Your task to perform on an android device: Search for razer blade on bestbuy, select the first entry, and add it to the cart. Image 0: 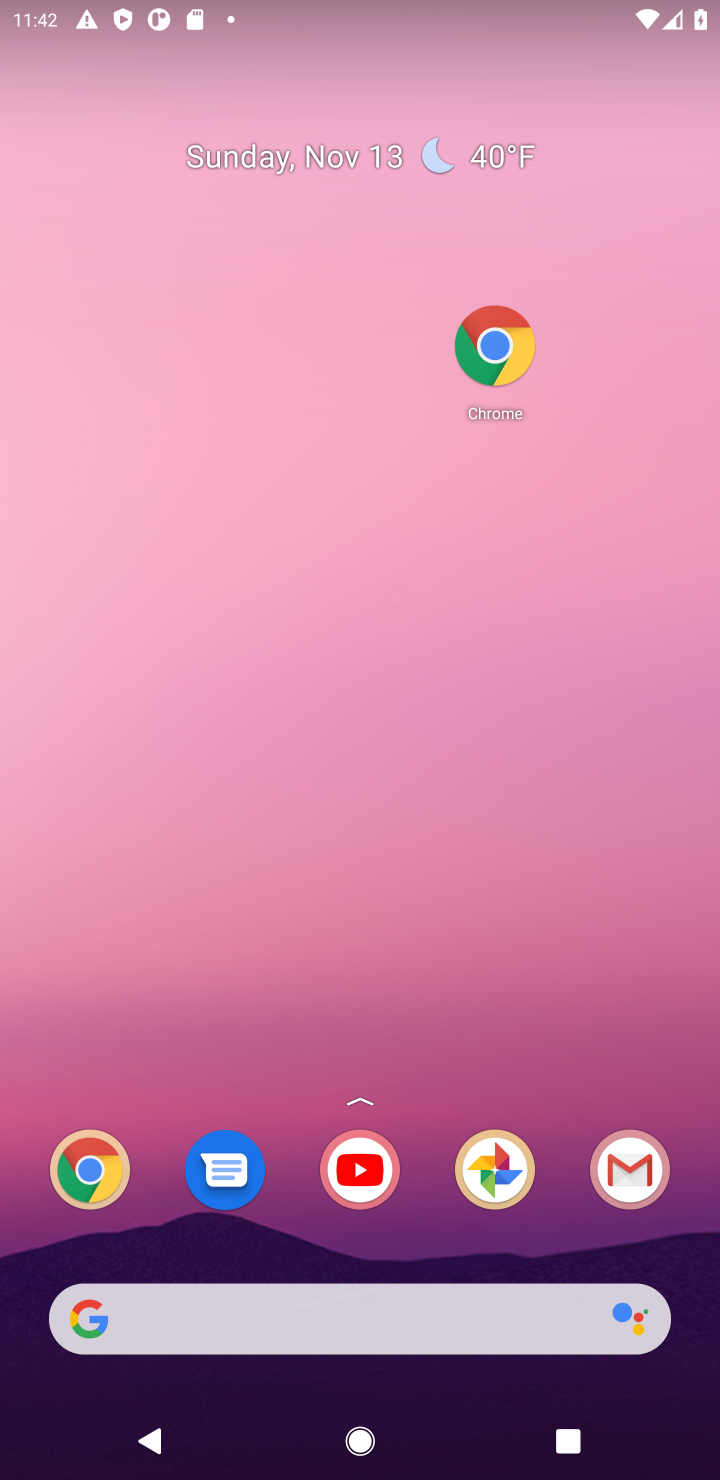
Step 0: drag from (192, 1055) to (242, 183)
Your task to perform on an android device: Search for razer blade on bestbuy, select the first entry, and add it to the cart. Image 1: 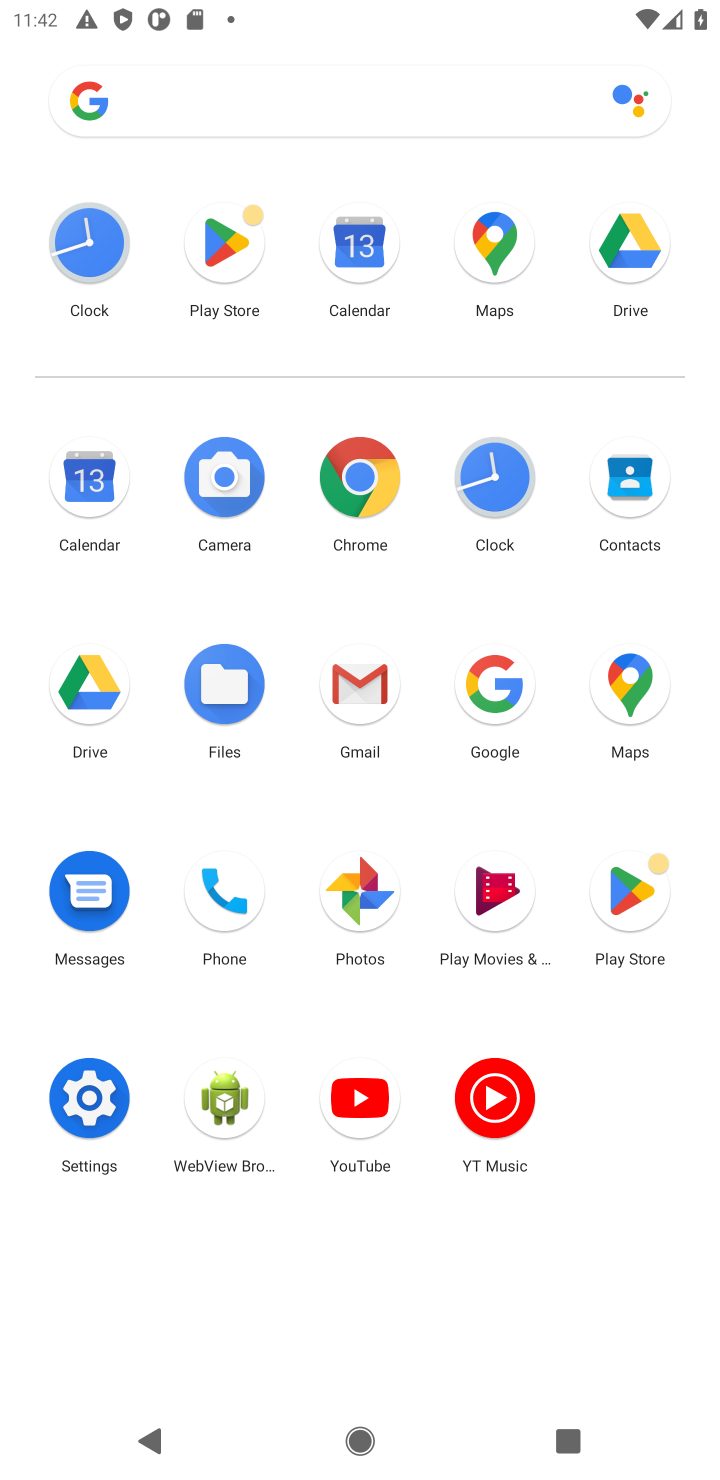
Step 1: click (381, 486)
Your task to perform on an android device: Search for razer blade on bestbuy, select the first entry, and add it to the cart. Image 2: 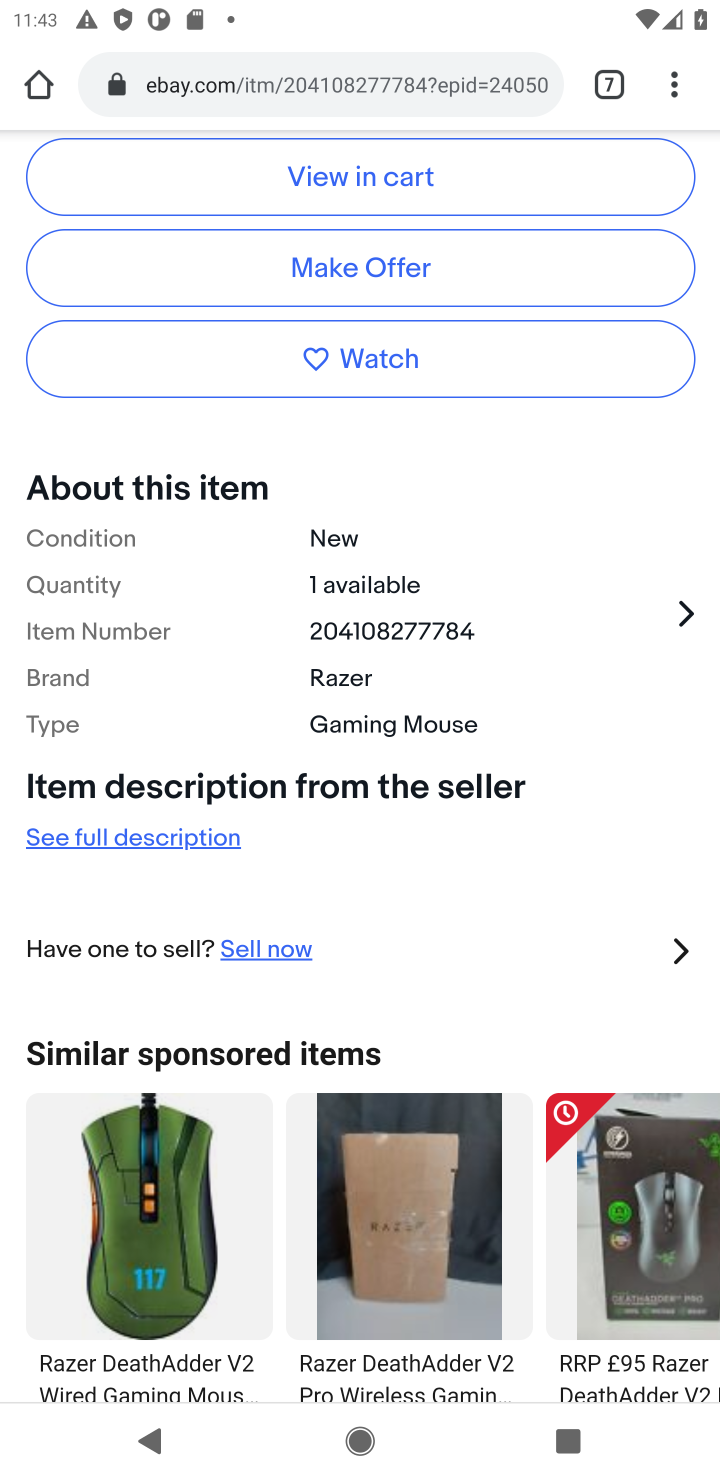
Step 2: drag from (455, 508) to (531, 891)
Your task to perform on an android device: Search for razer blade on bestbuy, select the first entry, and add it to the cart. Image 3: 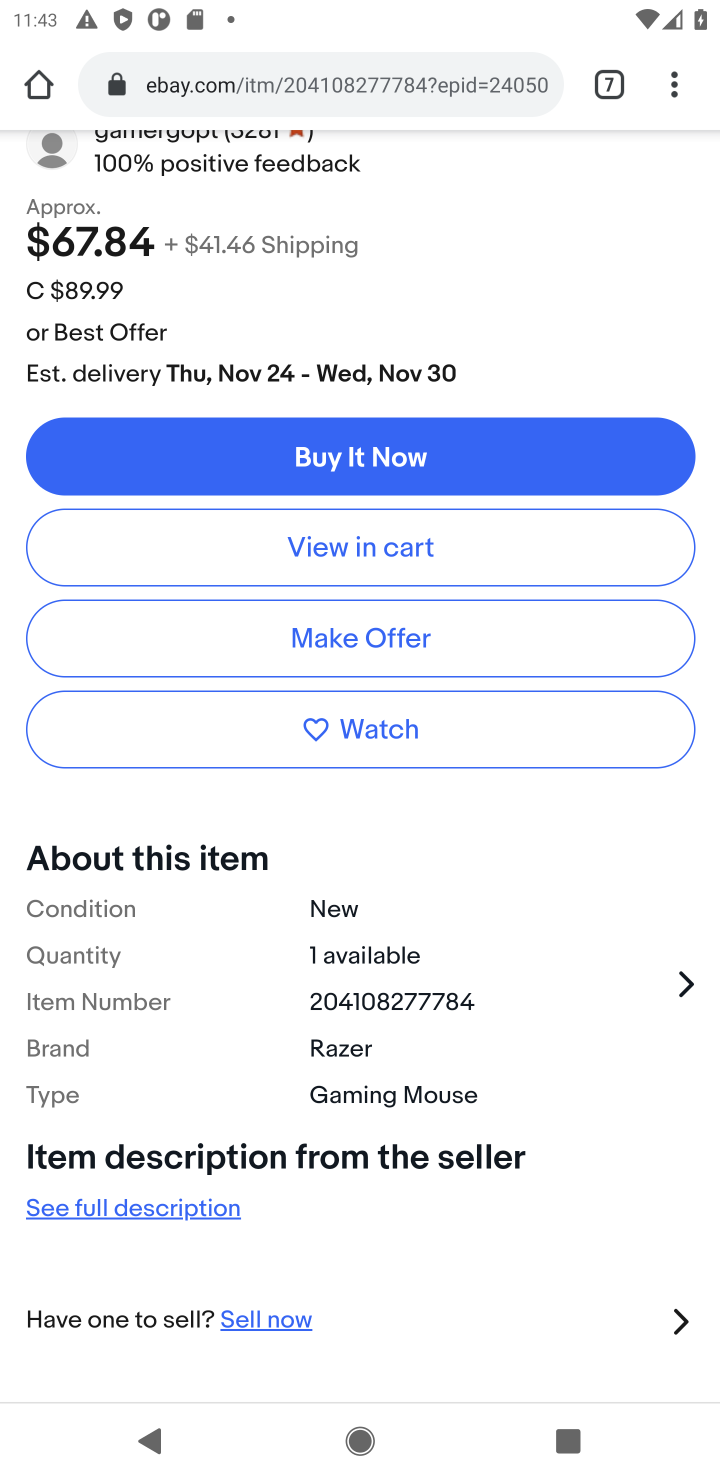
Step 3: drag from (614, 317) to (564, 892)
Your task to perform on an android device: Search for razer blade on bestbuy, select the first entry, and add it to the cart. Image 4: 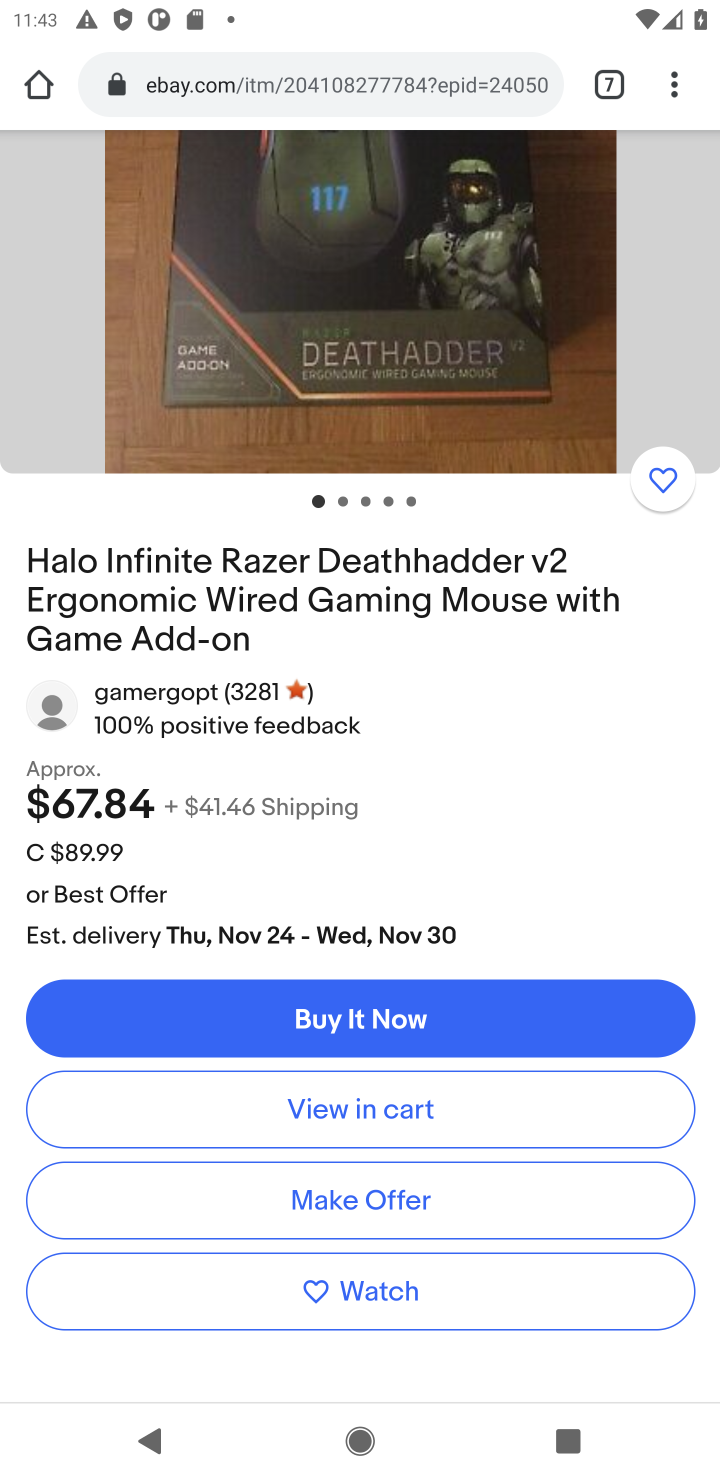
Step 4: click (449, 96)
Your task to perform on an android device: Search for razer blade on bestbuy, select the first entry, and add it to the cart. Image 5: 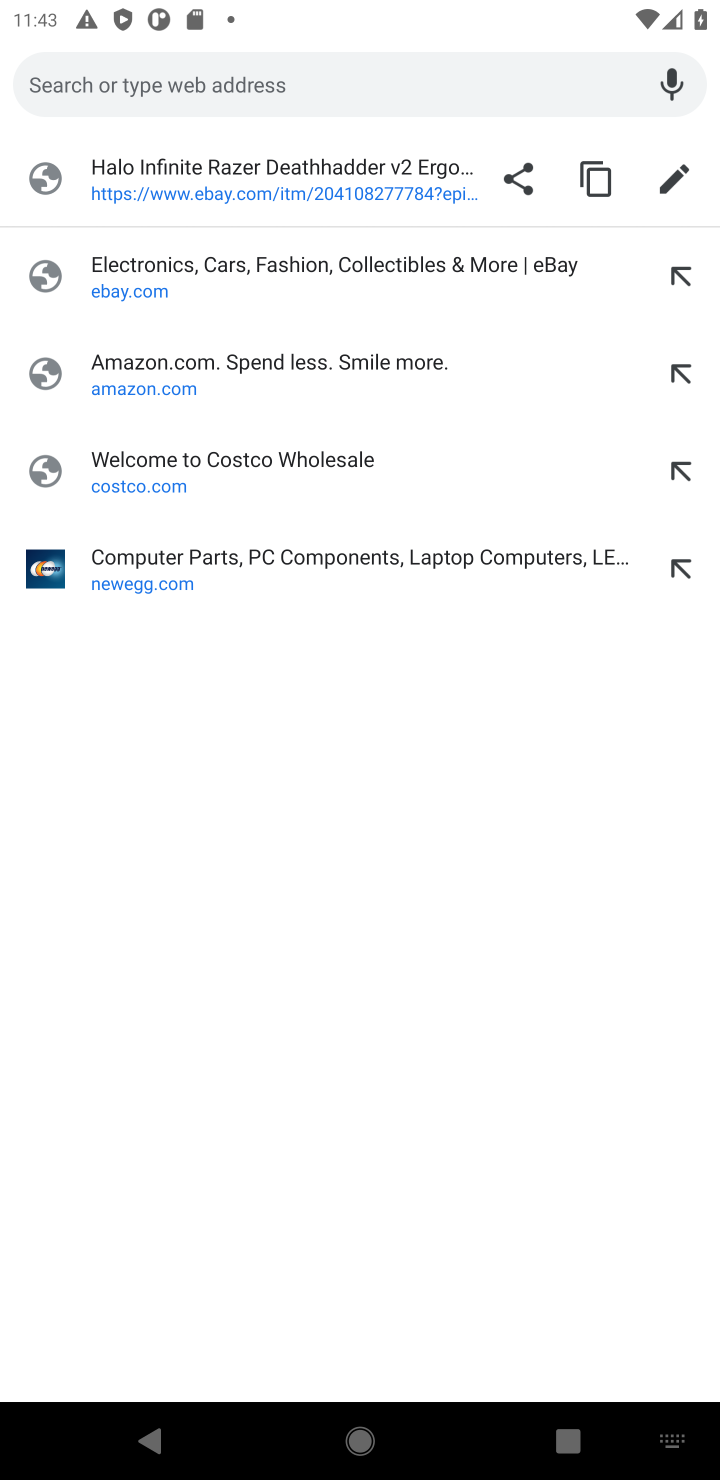
Step 5: type "bestbuy"
Your task to perform on an android device: Search for razer blade on bestbuy, select the first entry, and add it to the cart. Image 6: 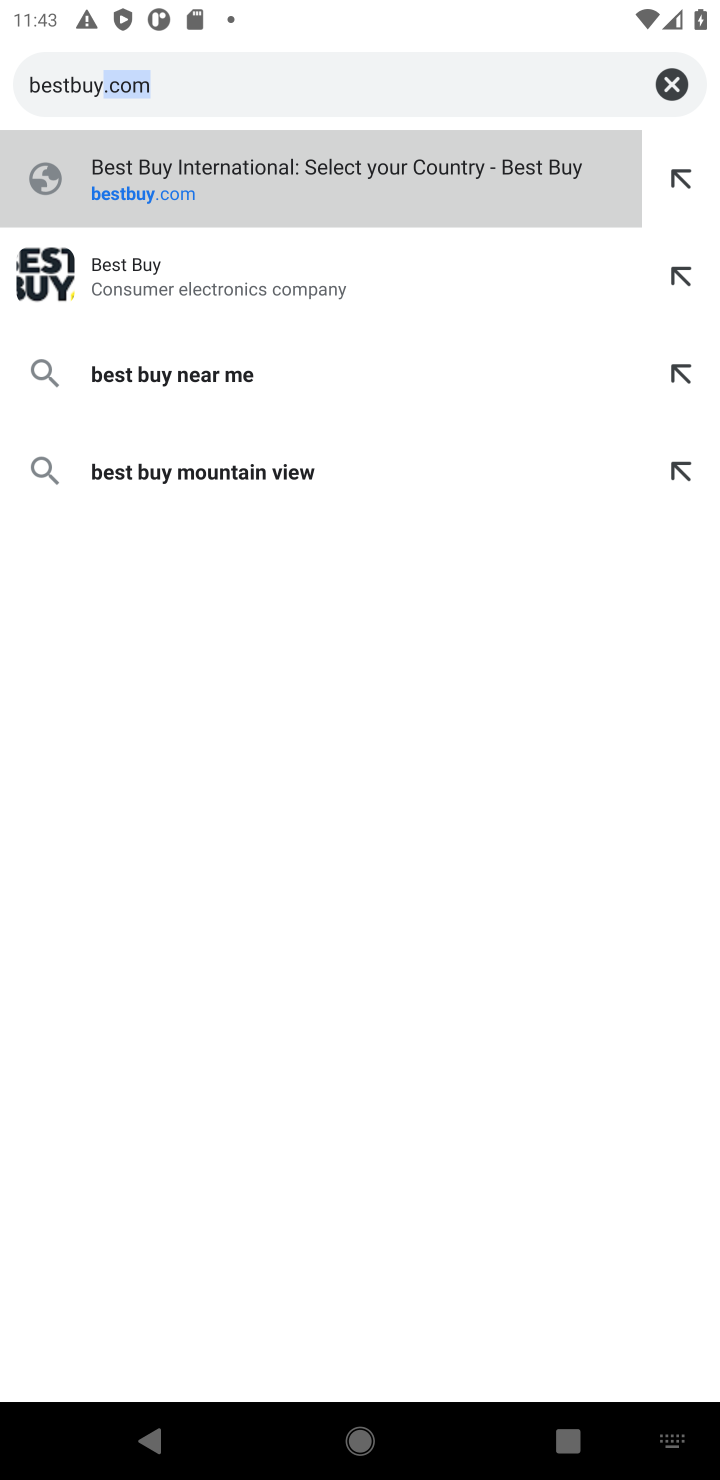
Step 6: press enter
Your task to perform on an android device: Search for razer blade on bestbuy, select the first entry, and add it to the cart. Image 7: 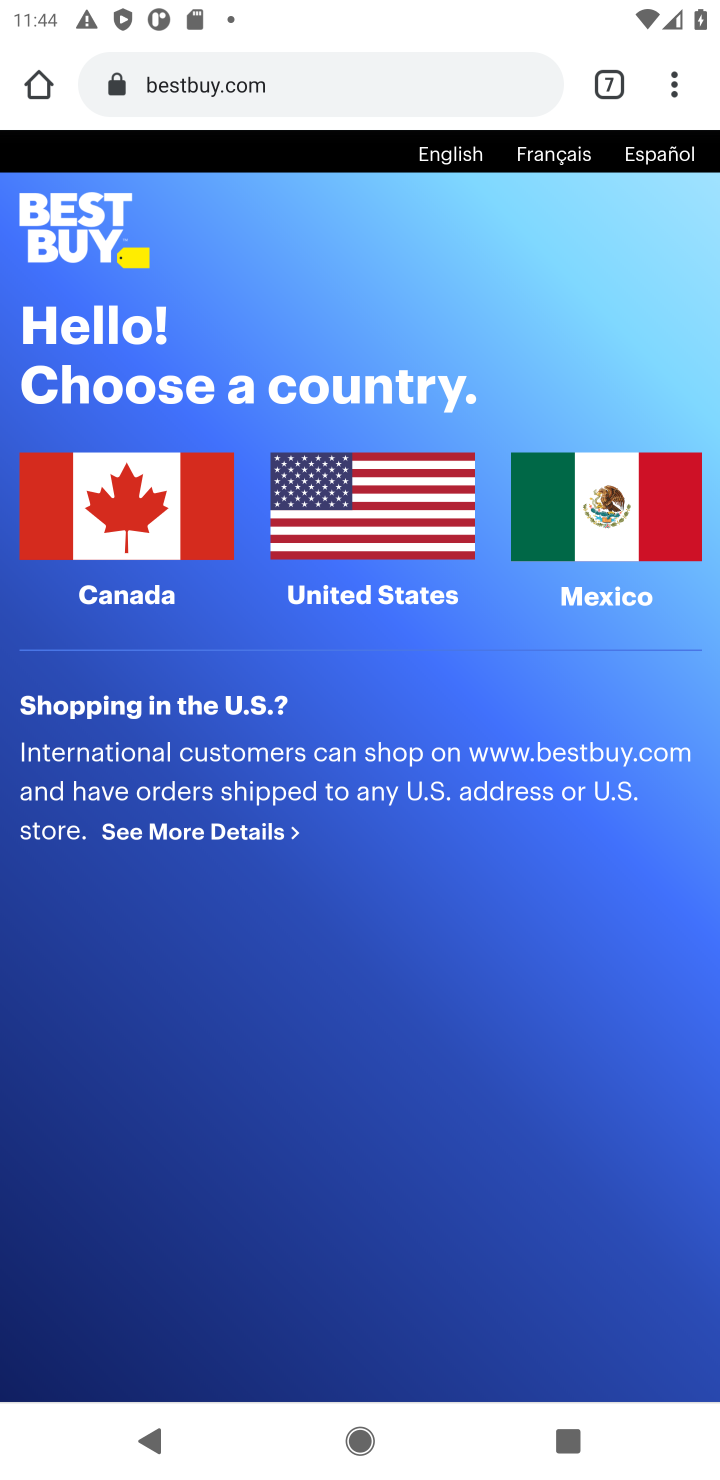
Step 7: click (160, 503)
Your task to perform on an android device: Search for razer blade on bestbuy, select the first entry, and add it to the cart. Image 8: 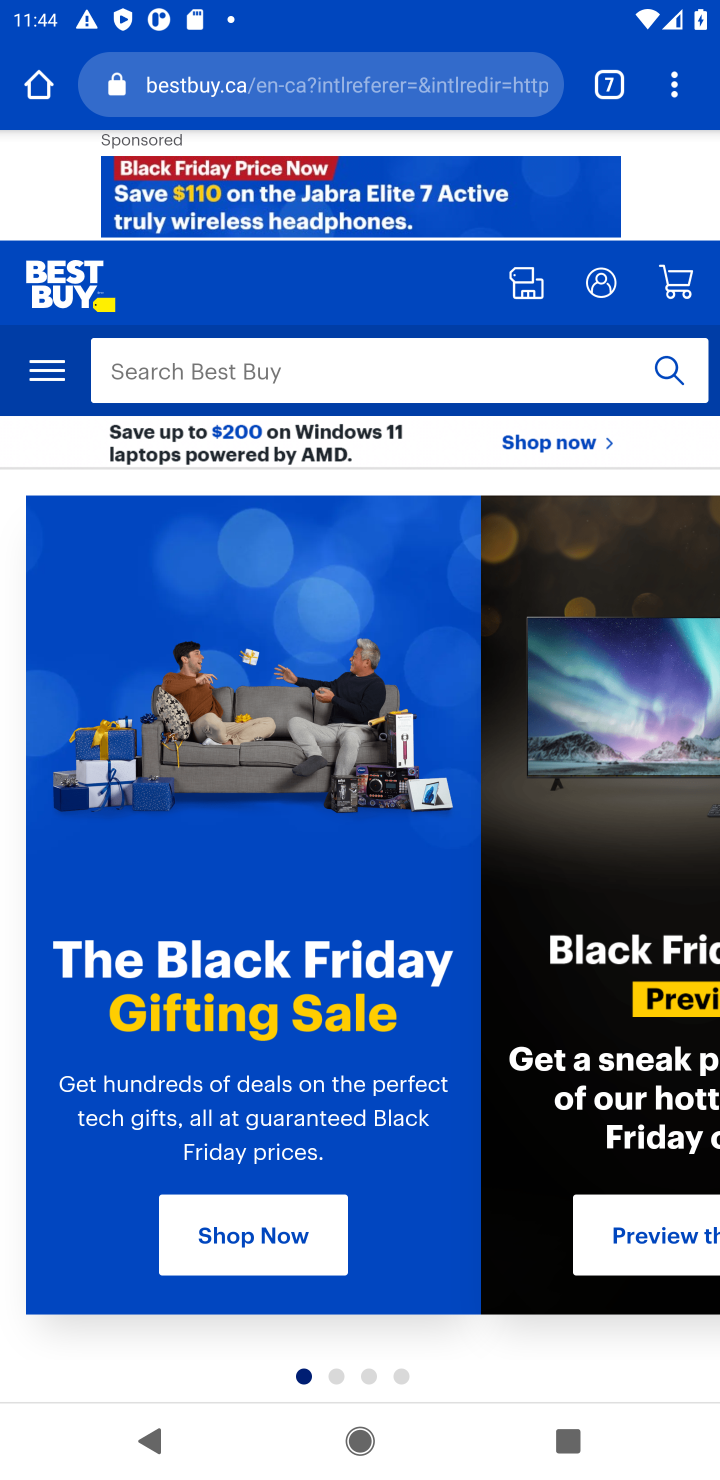
Step 8: click (325, 389)
Your task to perform on an android device: Search for razer blade on bestbuy, select the first entry, and add it to the cart. Image 9: 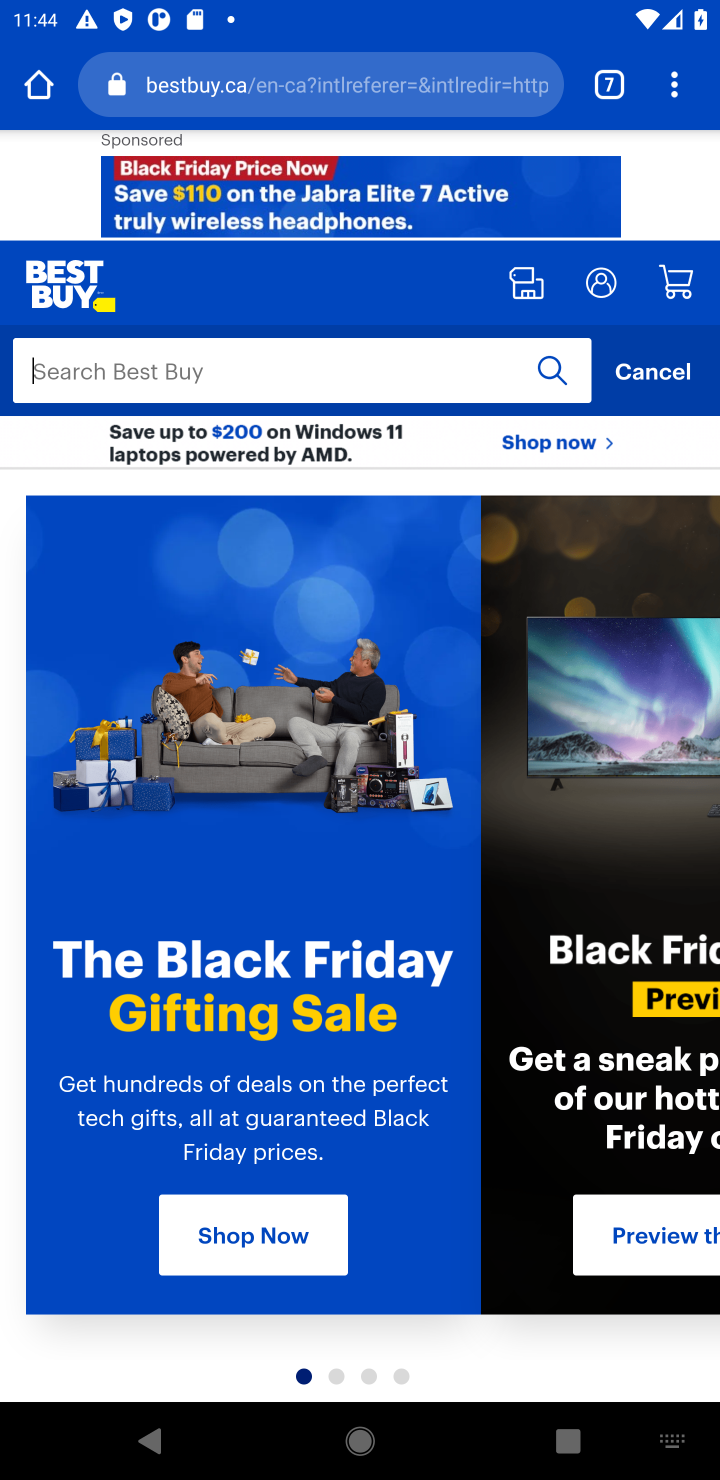
Step 9: press enter
Your task to perform on an android device: Search for razer blade on bestbuy, select the first entry, and add it to the cart. Image 10: 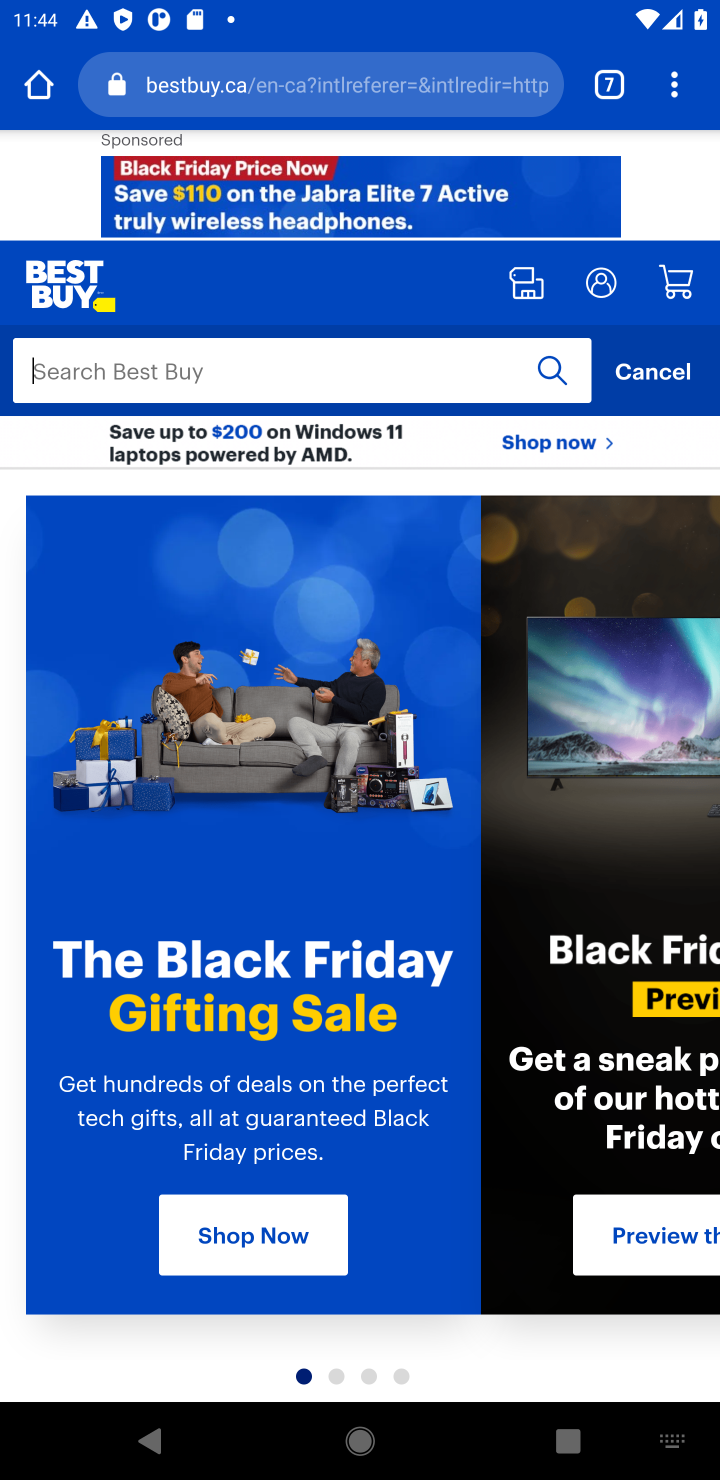
Step 10: type "razer blade"
Your task to perform on an android device: Search for razer blade on bestbuy, select the first entry, and add it to the cart. Image 11: 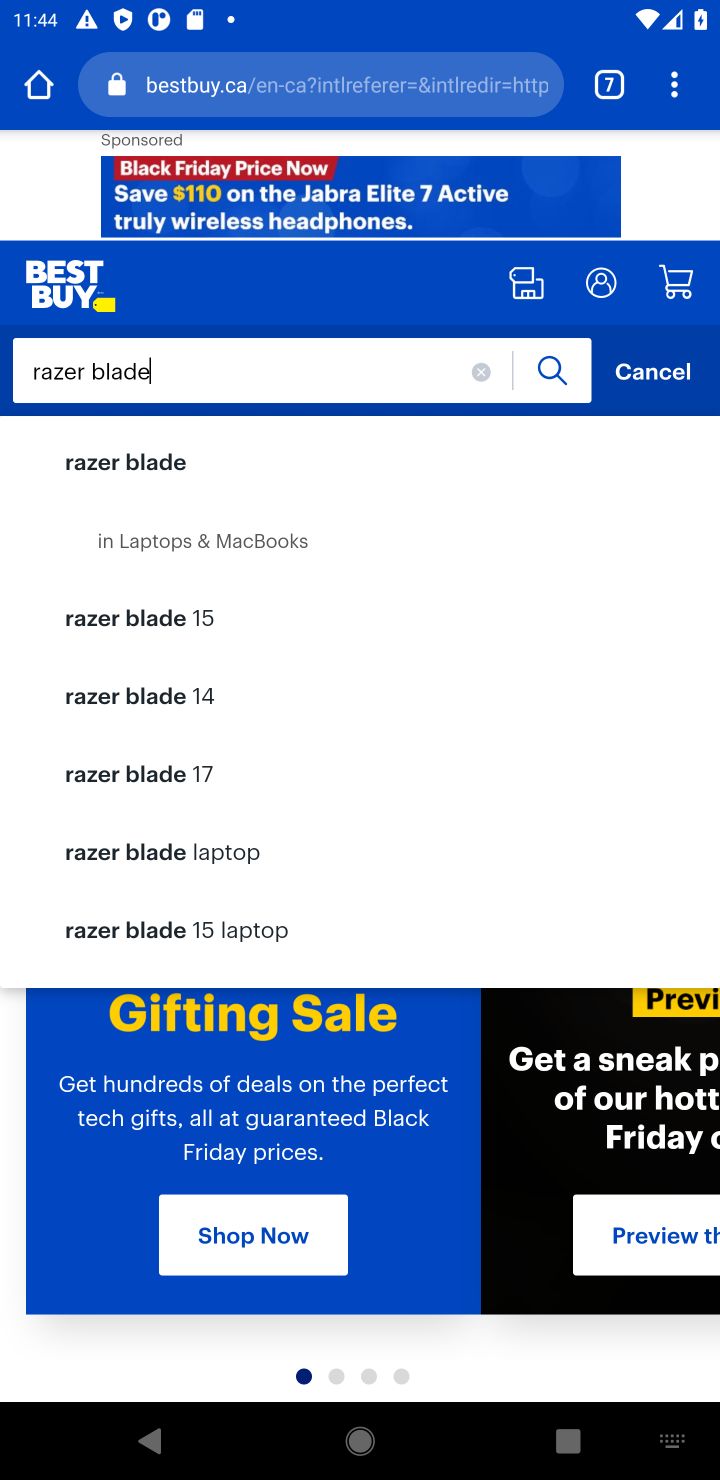
Step 11: click (552, 364)
Your task to perform on an android device: Search for razer blade on bestbuy, select the first entry, and add it to the cart. Image 12: 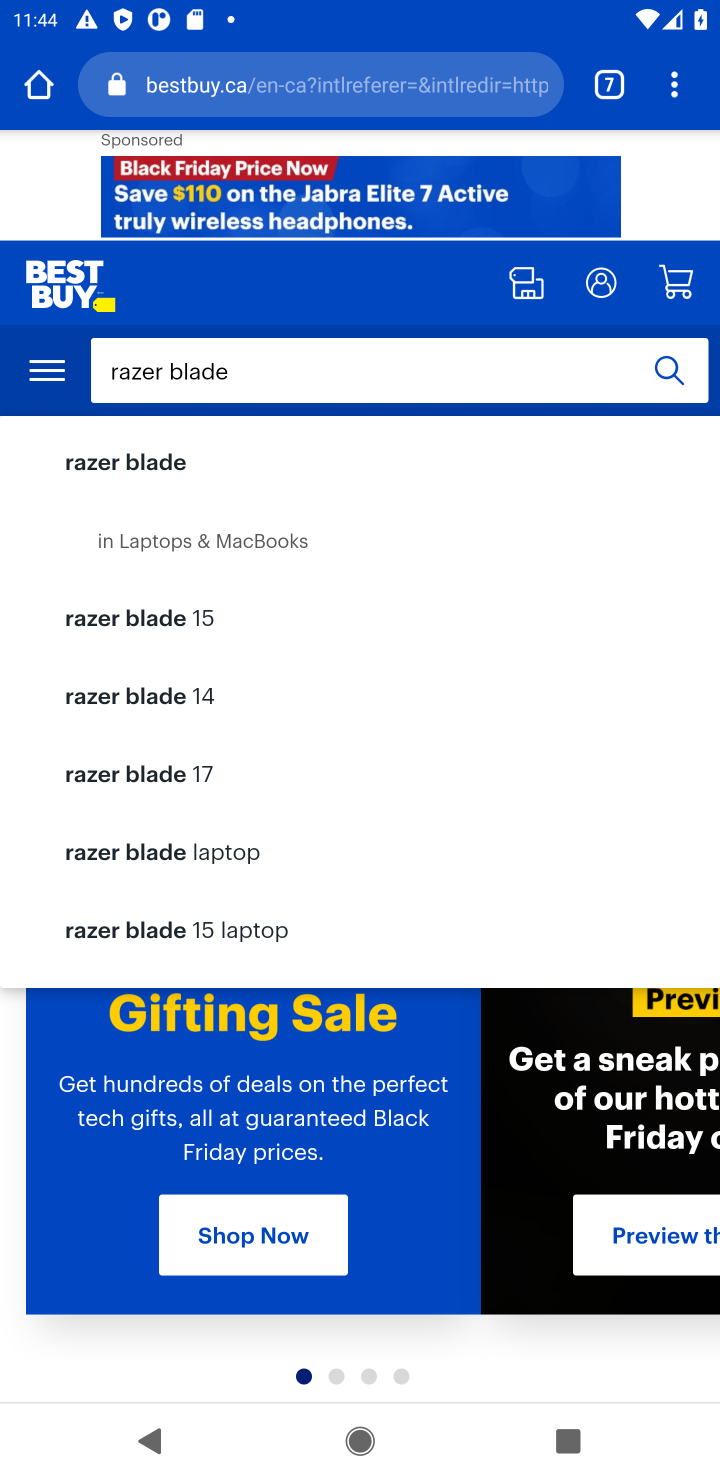
Step 12: click (687, 381)
Your task to perform on an android device: Search for razer blade on bestbuy, select the first entry, and add it to the cart. Image 13: 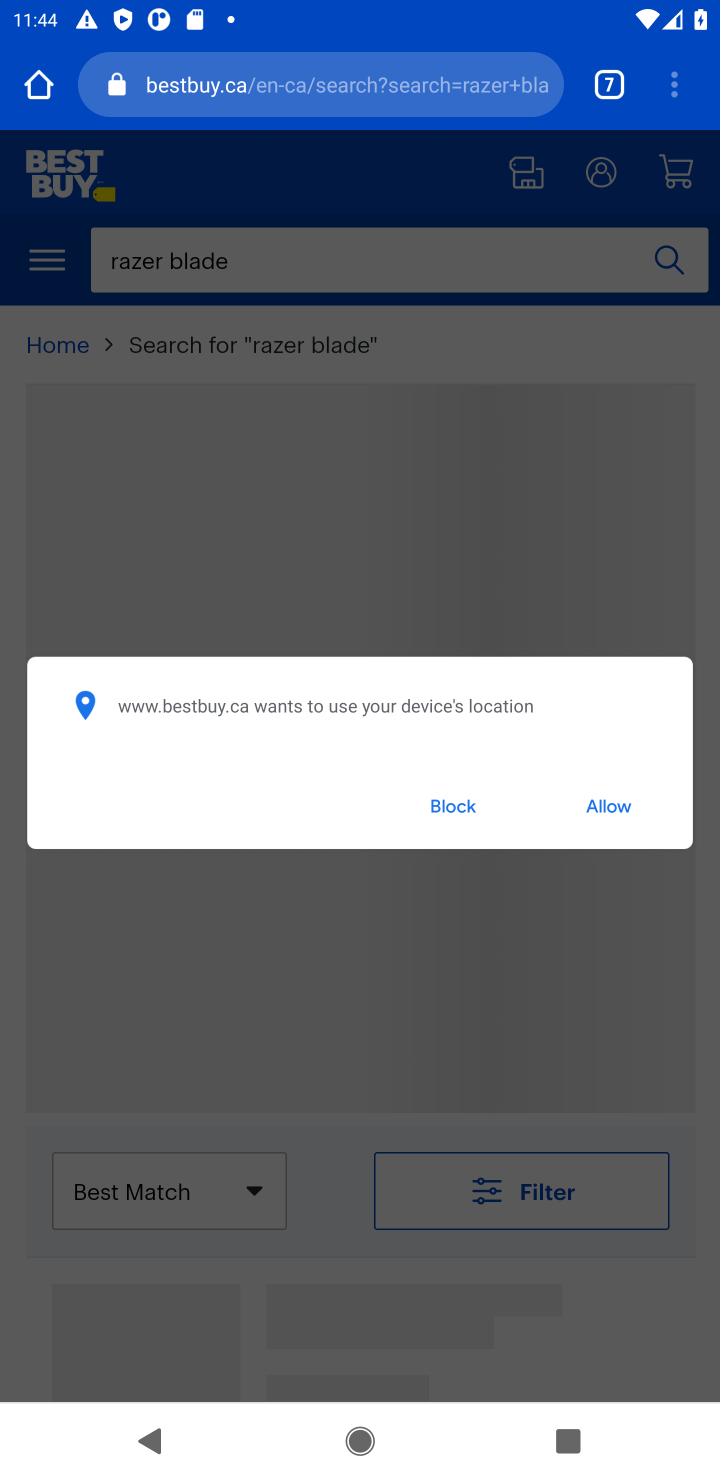
Step 13: click (612, 805)
Your task to perform on an android device: Search for razer blade on bestbuy, select the first entry, and add it to the cart. Image 14: 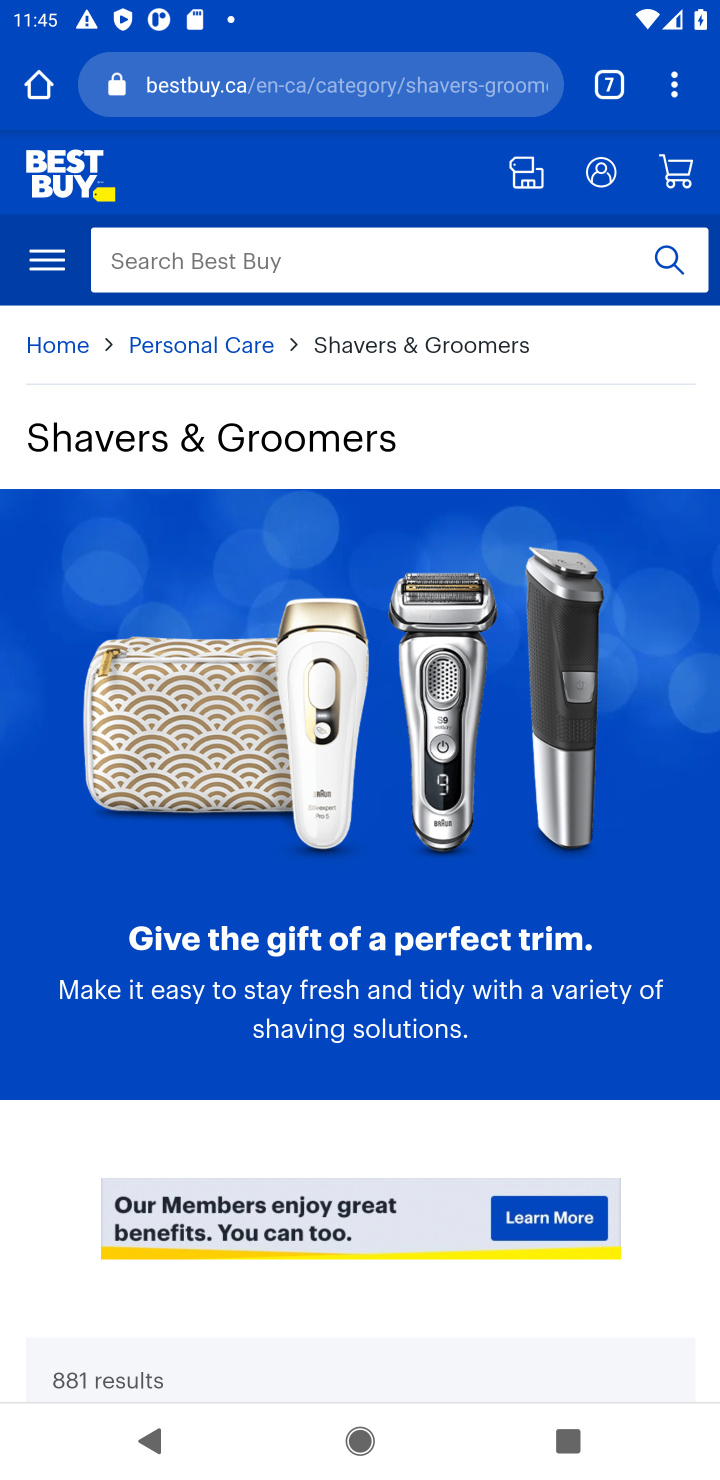
Step 14: click (200, 281)
Your task to perform on an android device: Search for razer blade on bestbuy, select the first entry, and add it to the cart. Image 15: 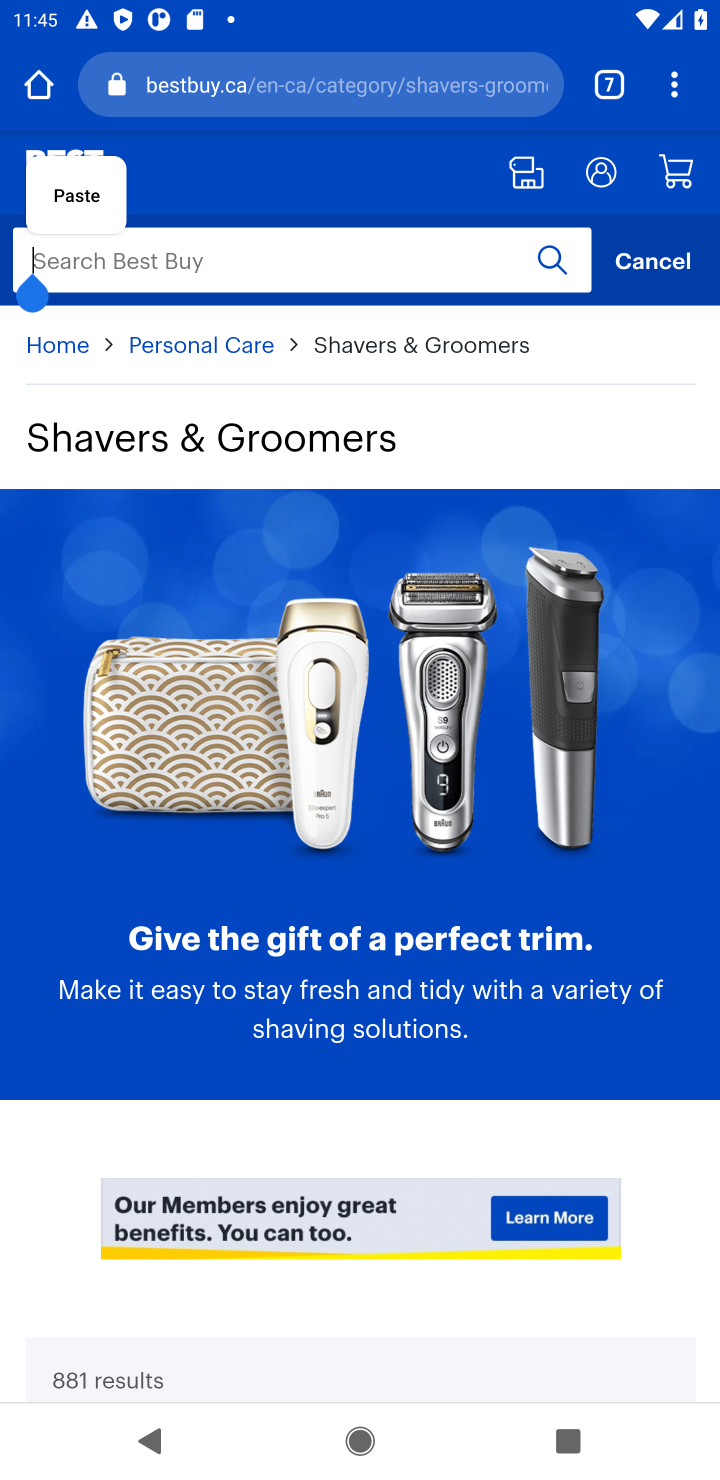
Step 15: click (109, 210)
Your task to perform on an android device: Search for razer blade on bestbuy, select the first entry, and add it to the cart. Image 16: 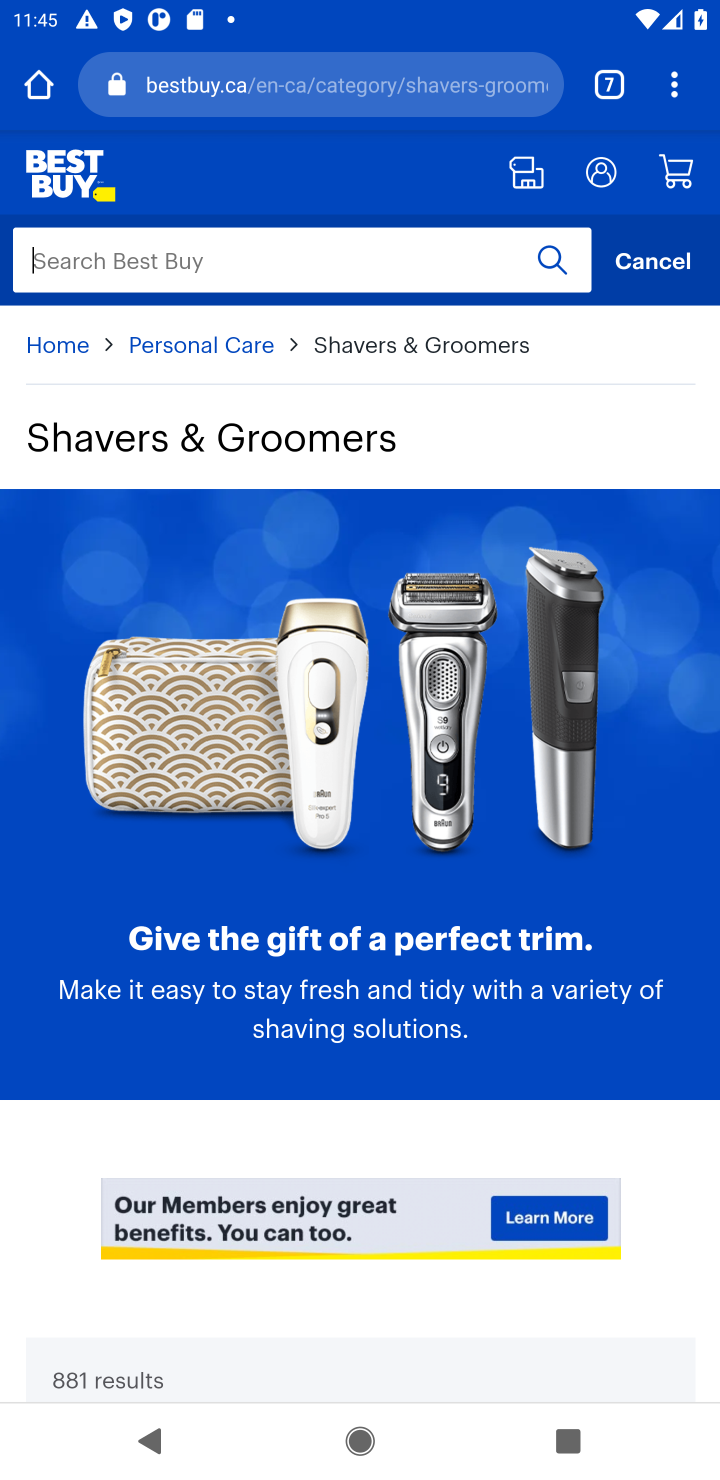
Step 16: click (131, 256)
Your task to perform on an android device: Search for razer blade on bestbuy, select the first entry, and add it to the cart. Image 17: 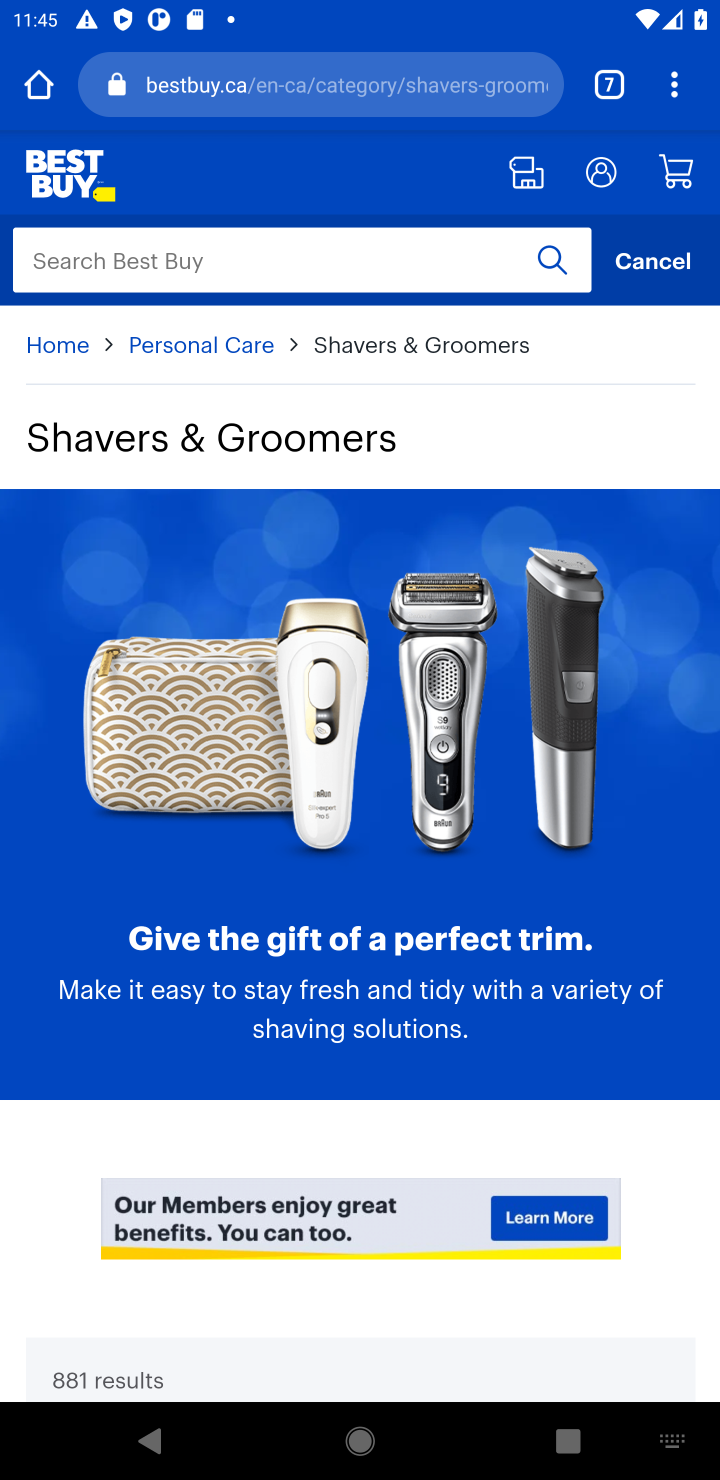
Step 17: type "razer blade"
Your task to perform on an android device: Search for razer blade on bestbuy, select the first entry, and add it to the cart. Image 18: 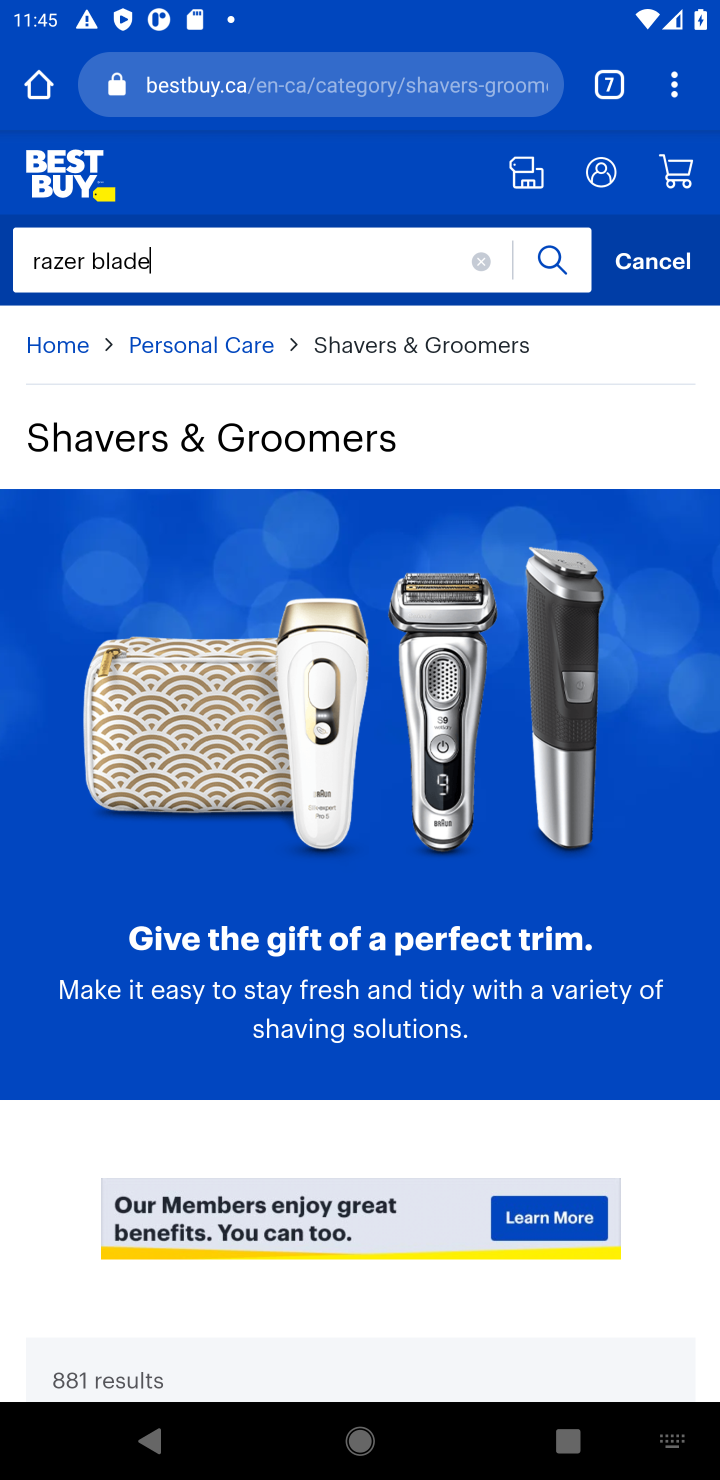
Step 18: press enter
Your task to perform on an android device: Search for razer blade on bestbuy, select the first entry, and add it to the cart. Image 19: 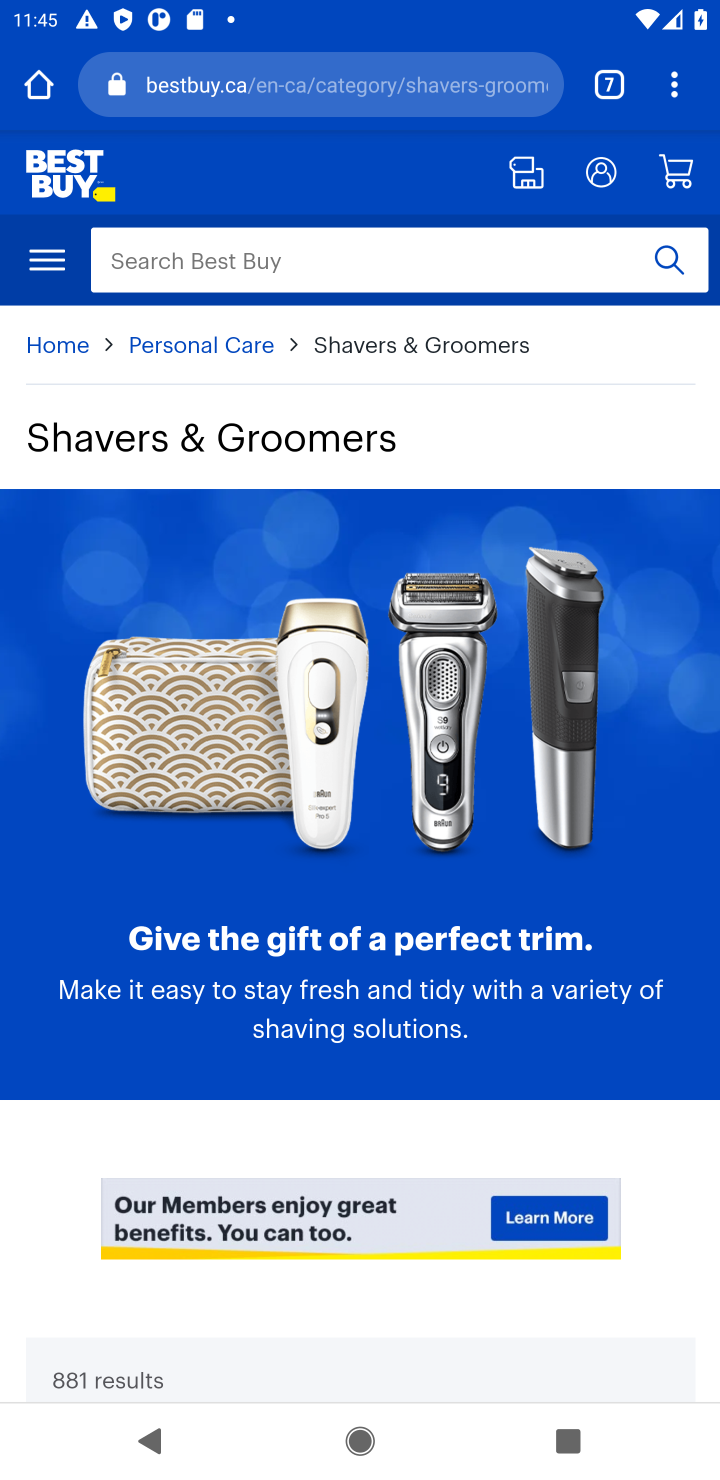
Step 19: drag from (201, 786) to (343, 283)
Your task to perform on an android device: Search for razer blade on bestbuy, select the first entry, and add it to the cart. Image 20: 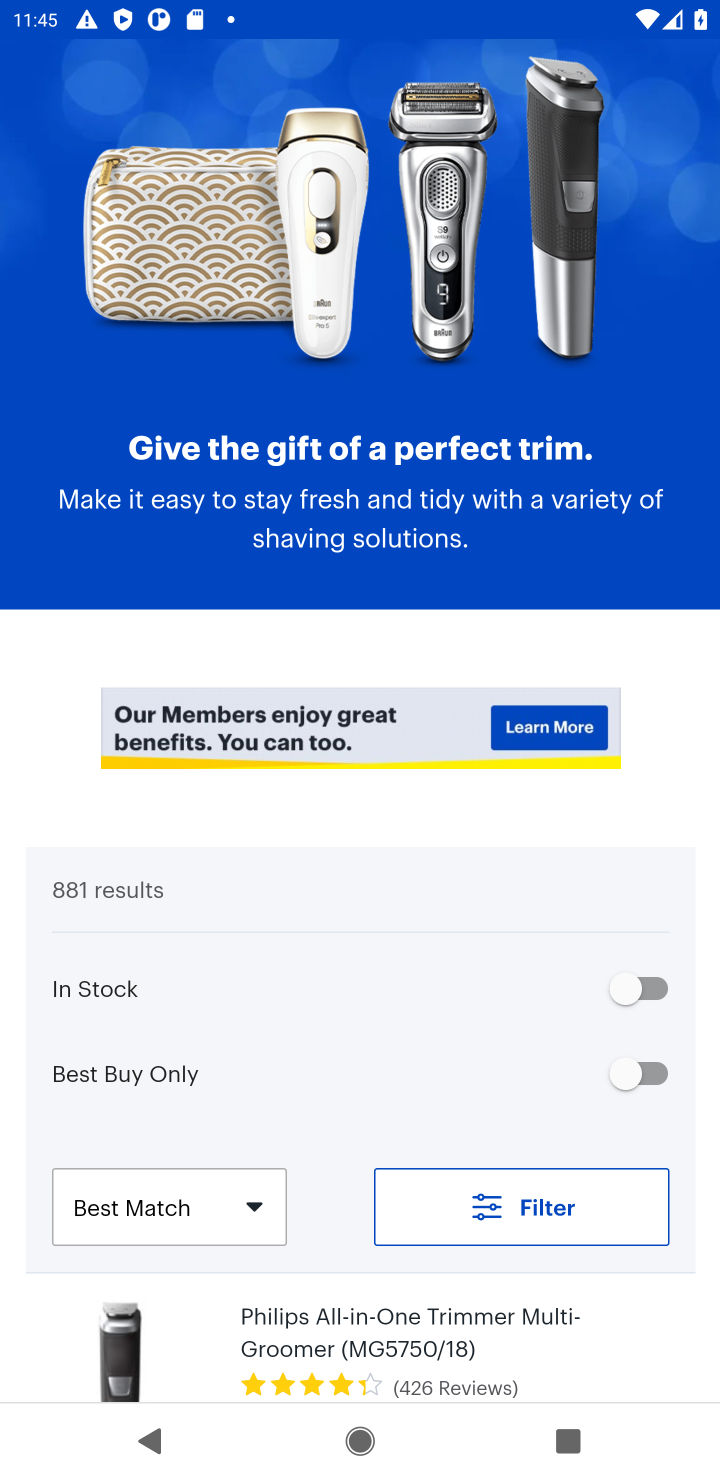
Step 20: drag from (307, 1004) to (475, 334)
Your task to perform on an android device: Search for razer blade on bestbuy, select the first entry, and add it to the cart. Image 21: 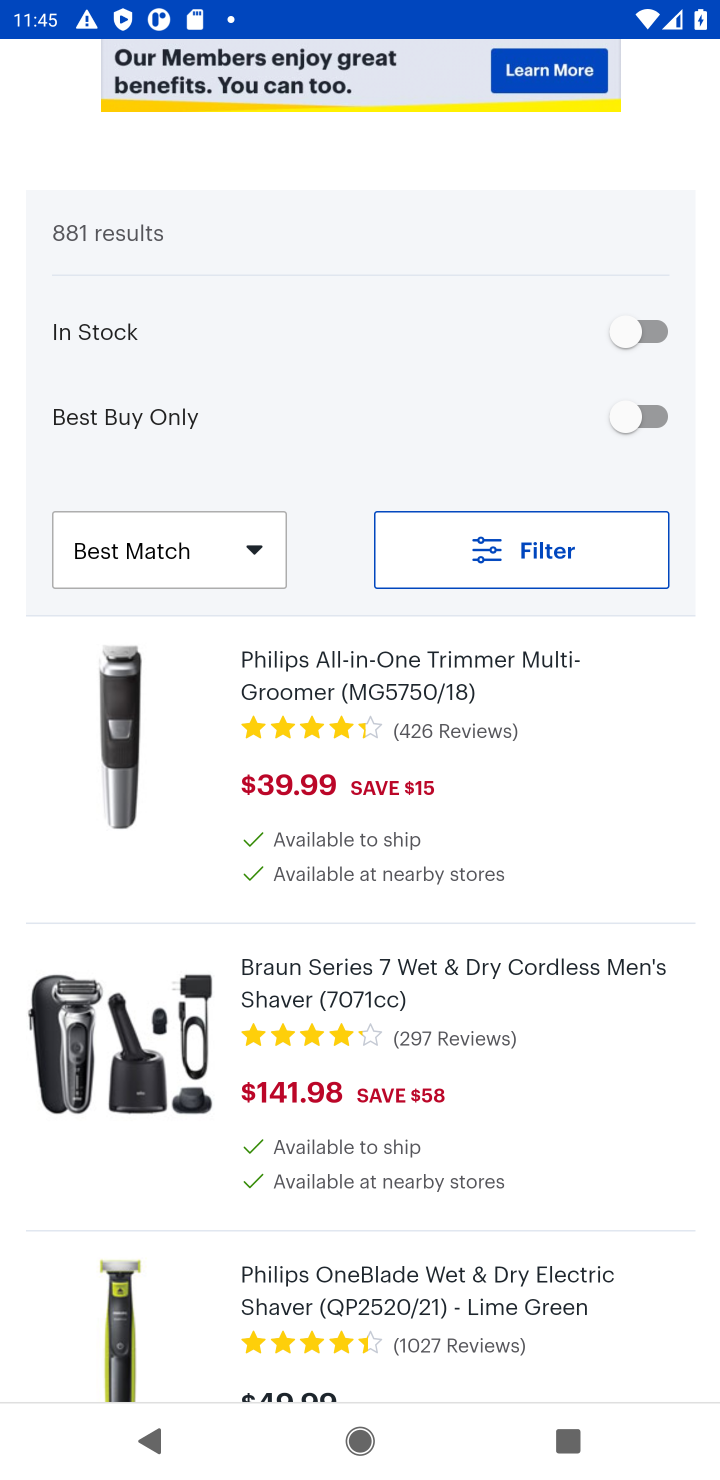
Step 21: click (360, 696)
Your task to perform on an android device: Search for razer blade on bestbuy, select the first entry, and add it to the cart. Image 22: 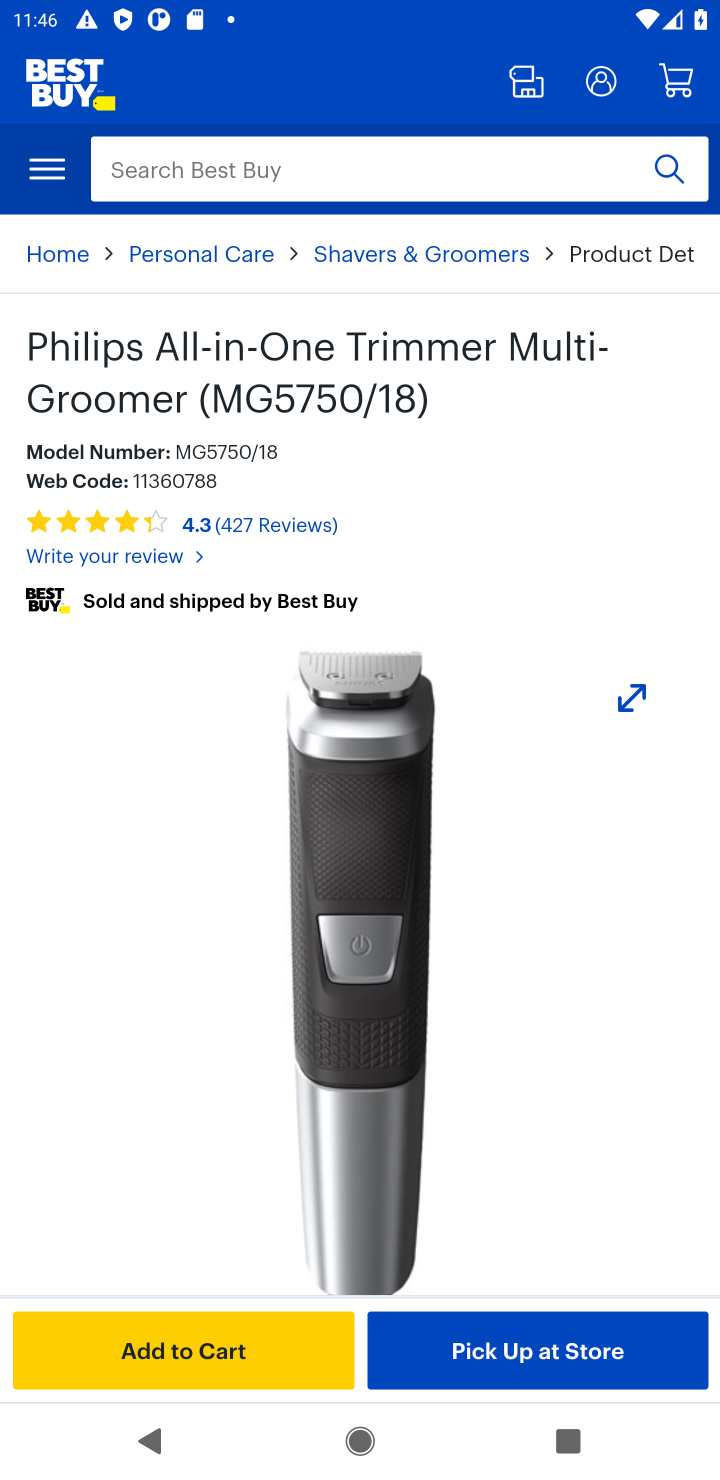
Step 22: click (225, 1360)
Your task to perform on an android device: Search for razer blade on bestbuy, select the first entry, and add it to the cart. Image 23: 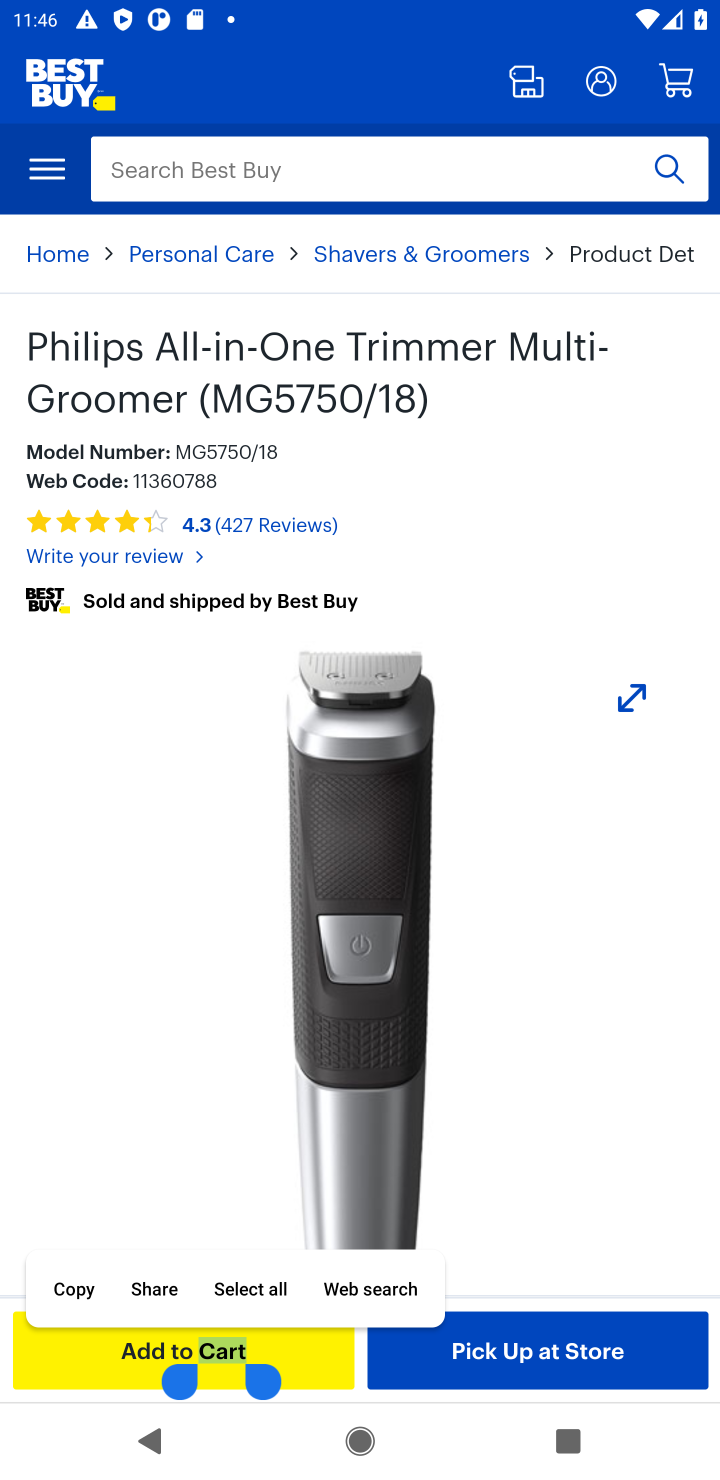
Step 23: click (266, 1375)
Your task to perform on an android device: Search for razer blade on bestbuy, select the first entry, and add it to the cart. Image 24: 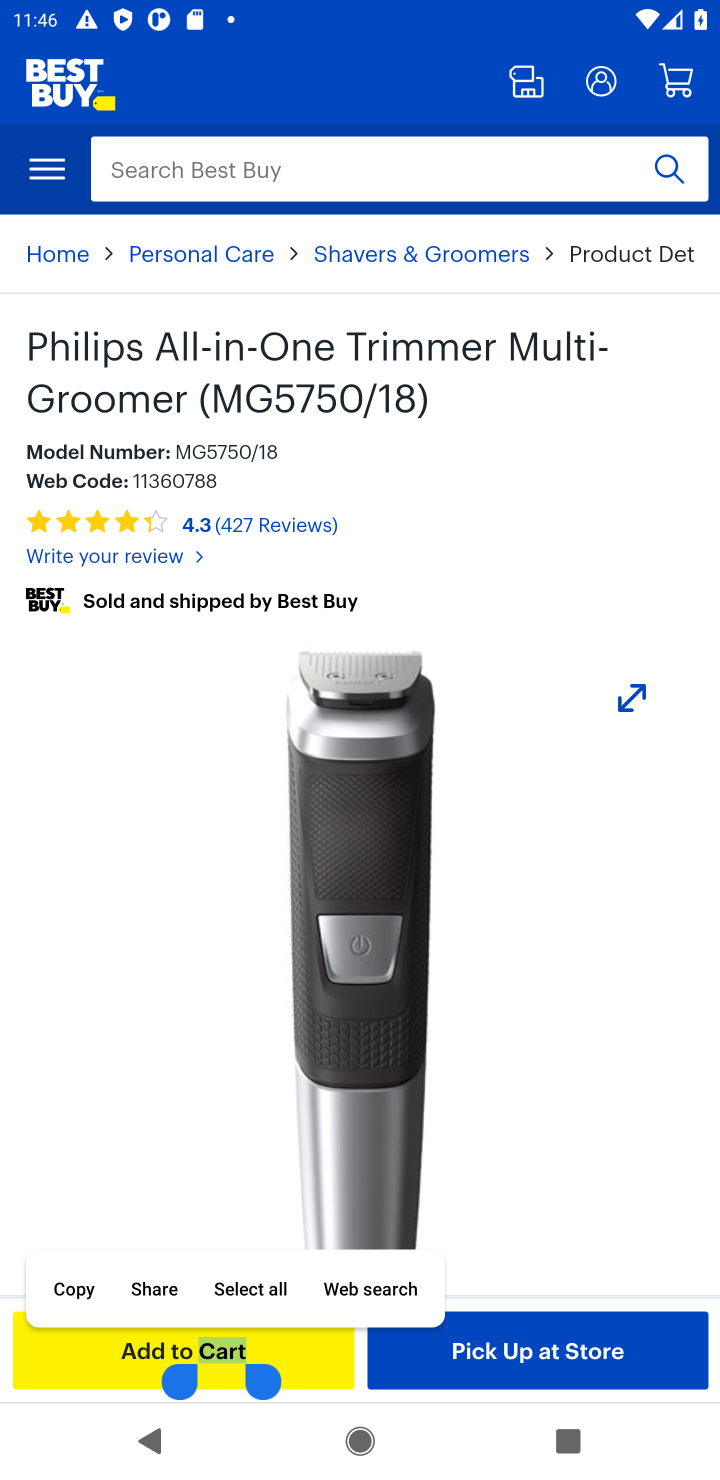
Step 24: click (300, 1366)
Your task to perform on an android device: Search for razer blade on bestbuy, select the first entry, and add it to the cart. Image 25: 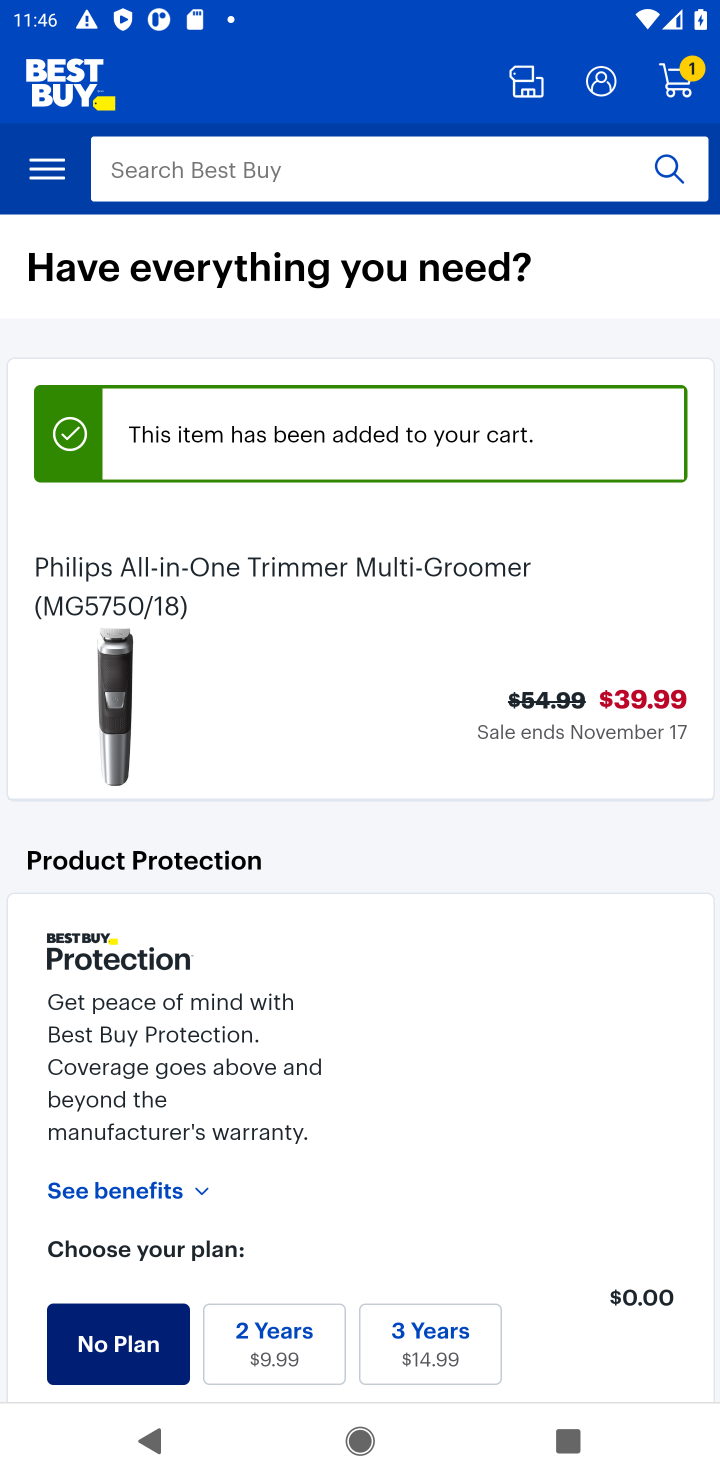
Step 25: task complete